Your task to perform on an android device: toggle location history Image 0: 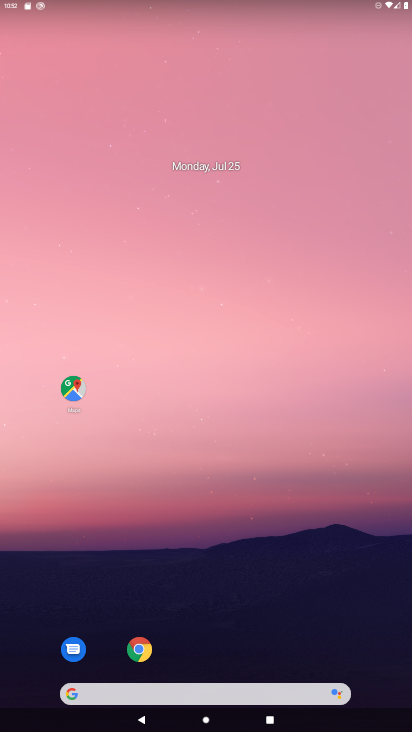
Step 0: click (73, 392)
Your task to perform on an android device: toggle location history Image 1: 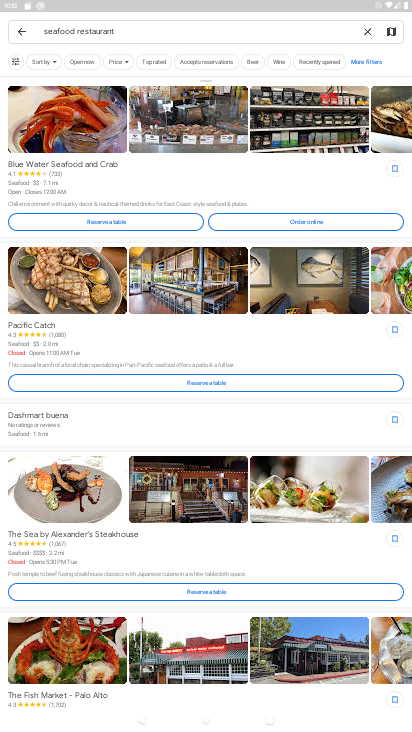
Step 1: click (365, 30)
Your task to perform on an android device: toggle location history Image 2: 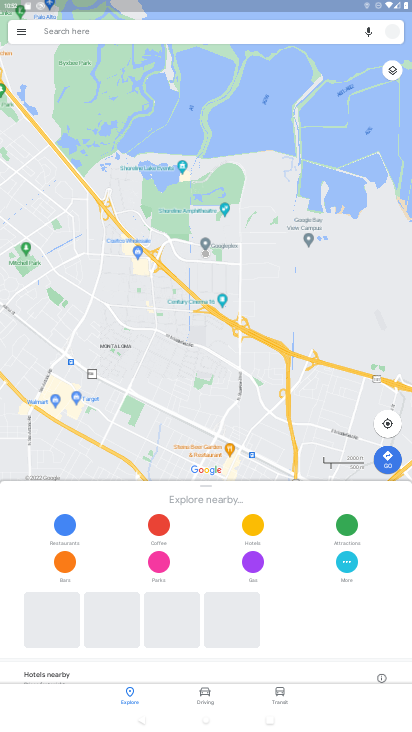
Step 2: click (21, 32)
Your task to perform on an android device: toggle location history Image 3: 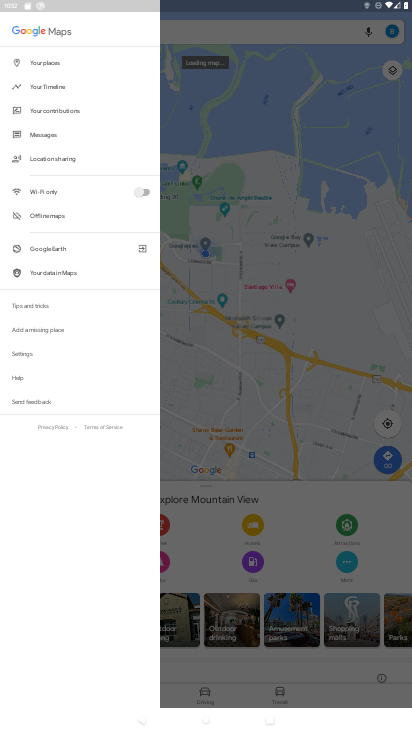
Step 3: click (26, 351)
Your task to perform on an android device: toggle location history Image 4: 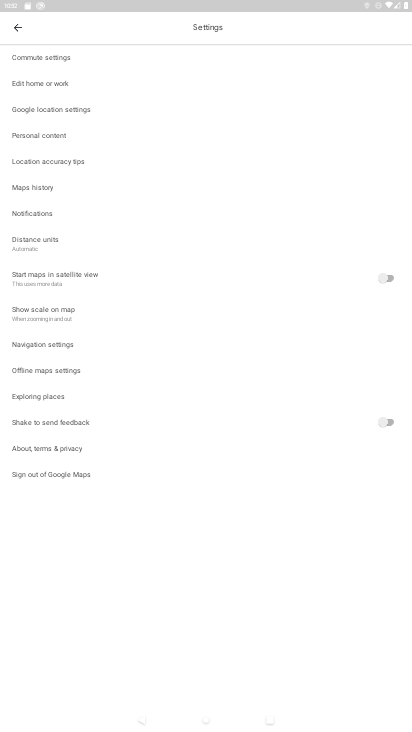
Step 4: click (28, 133)
Your task to perform on an android device: toggle location history Image 5: 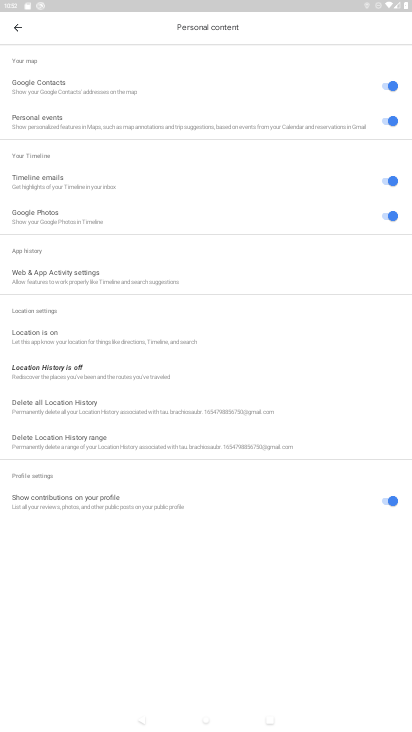
Step 5: click (56, 369)
Your task to perform on an android device: toggle location history Image 6: 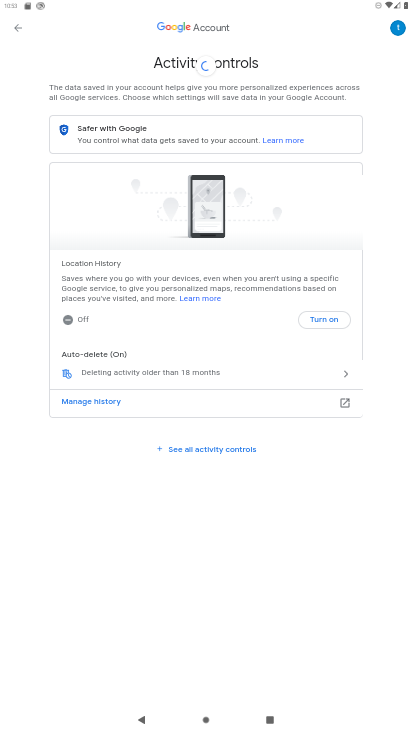
Step 6: click (324, 317)
Your task to perform on an android device: toggle location history Image 7: 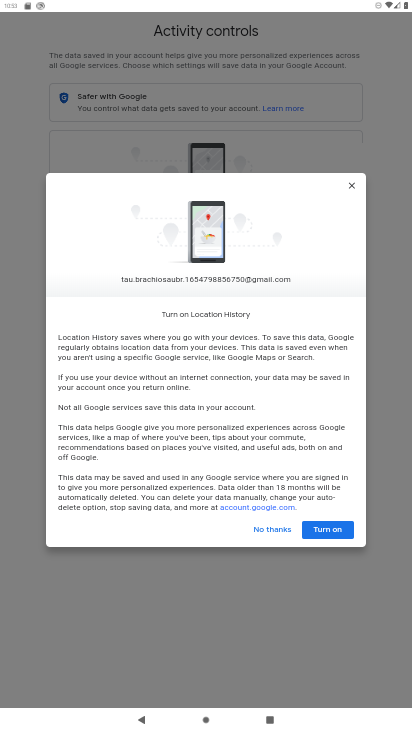
Step 7: click (325, 530)
Your task to perform on an android device: toggle location history Image 8: 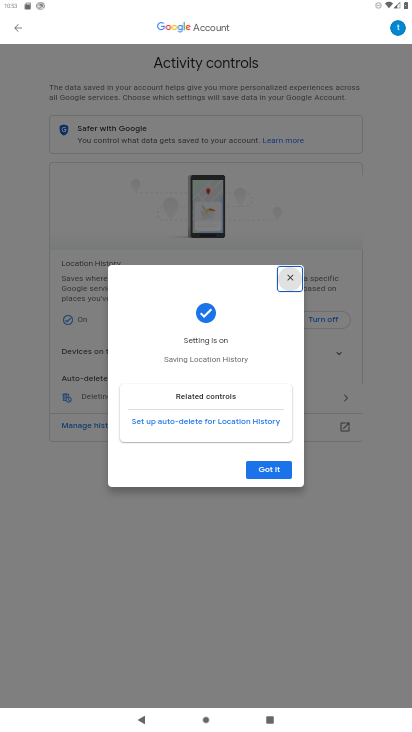
Step 8: click (269, 471)
Your task to perform on an android device: toggle location history Image 9: 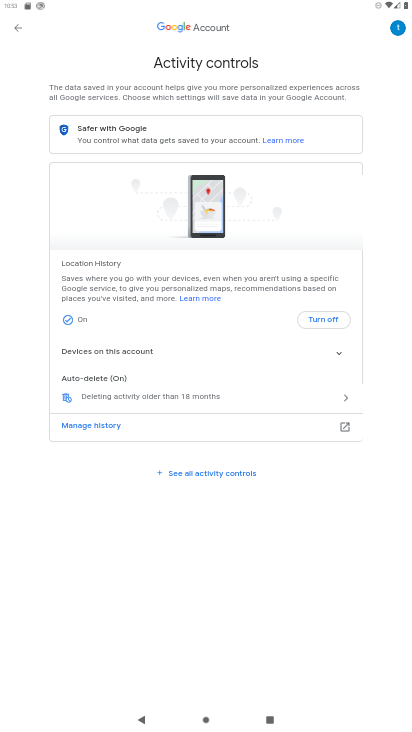
Step 9: task complete